Your task to perform on an android device: Go to notification settings Image 0: 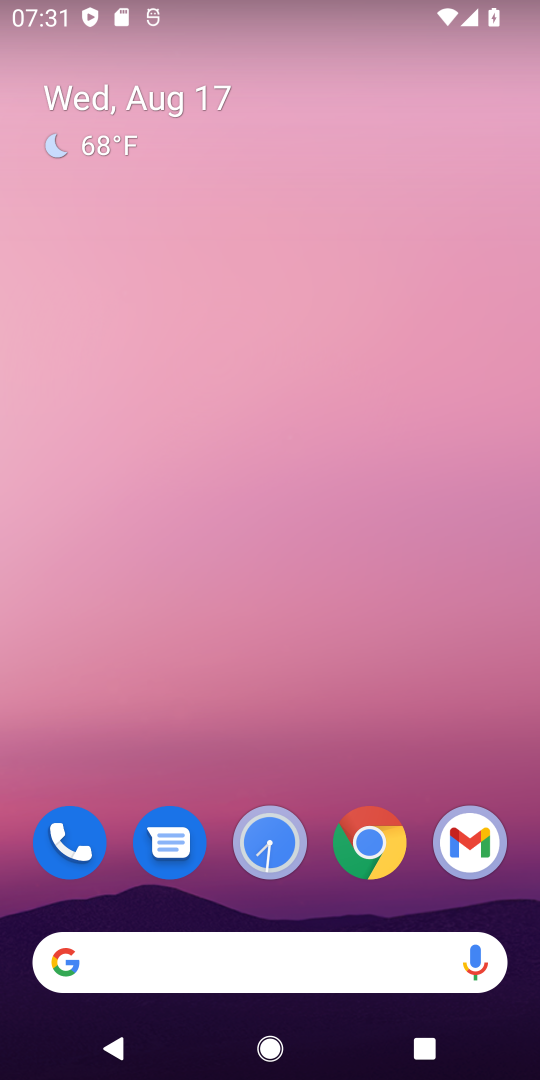
Step 0: drag from (321, 697) to (383, 0)
Your task to perform on an android device: Go to notification settings Image 1: 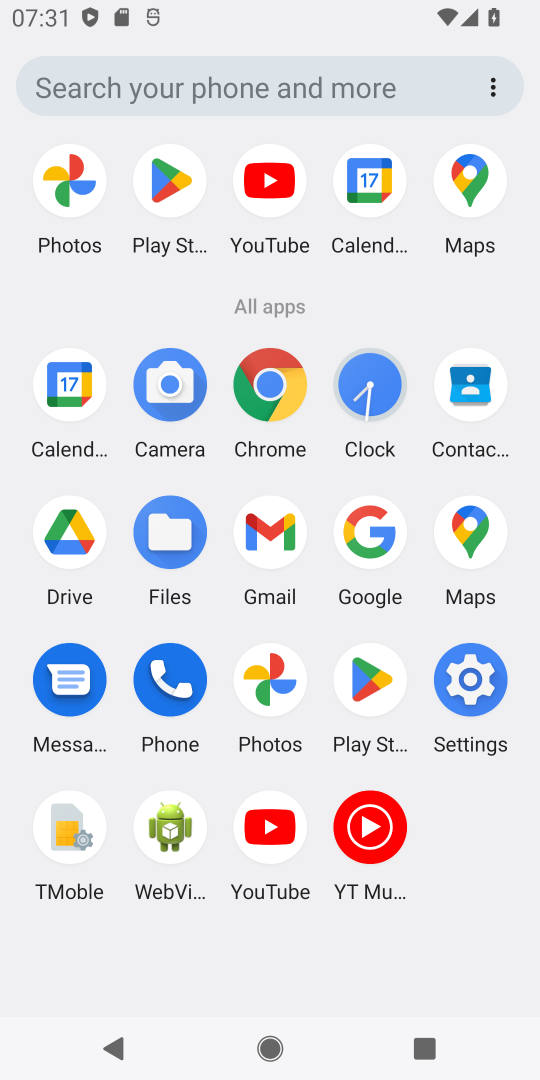
Step 1: click (474, 680)
Your task to perform on an android device: Go to notification settings Image 2: 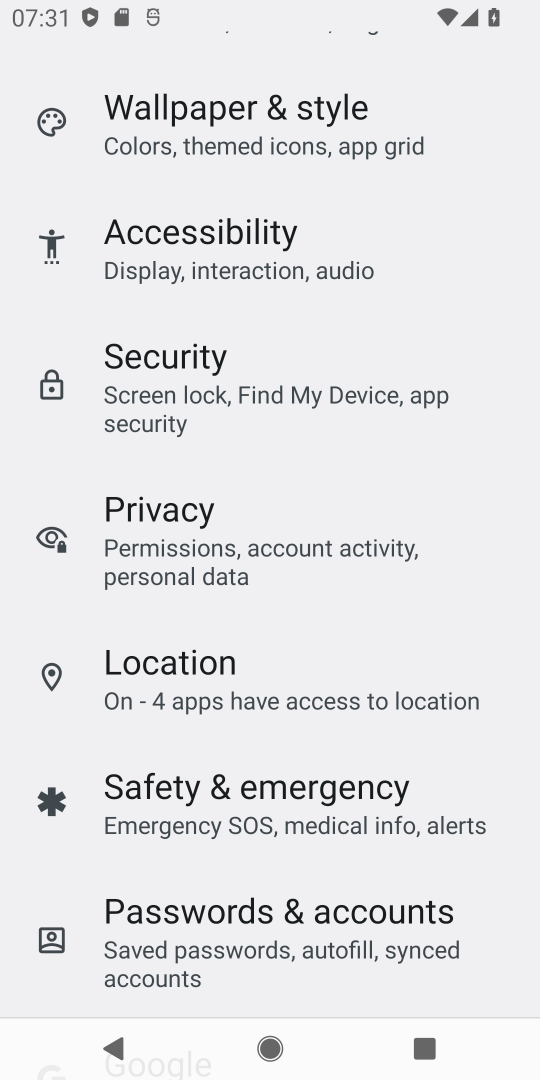
Step 2: drag from (306, 412) to (312, 922)
Your task to perform on an android device: Go to notification settings Image 3: 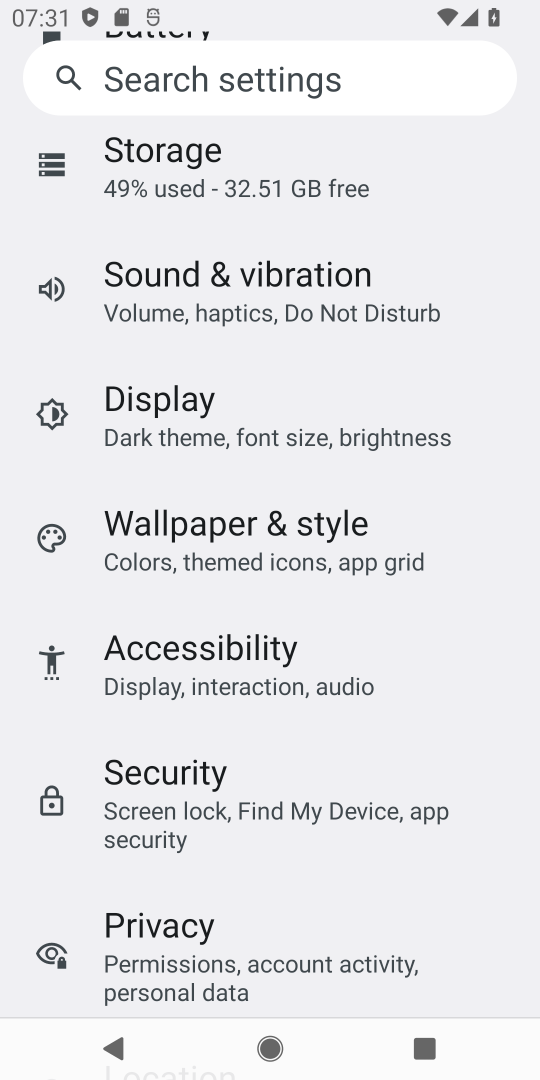
Step 3: drag from (304, 468) to (285, 874)
Your task to perform on an android device: Go to notification settings Image 4: 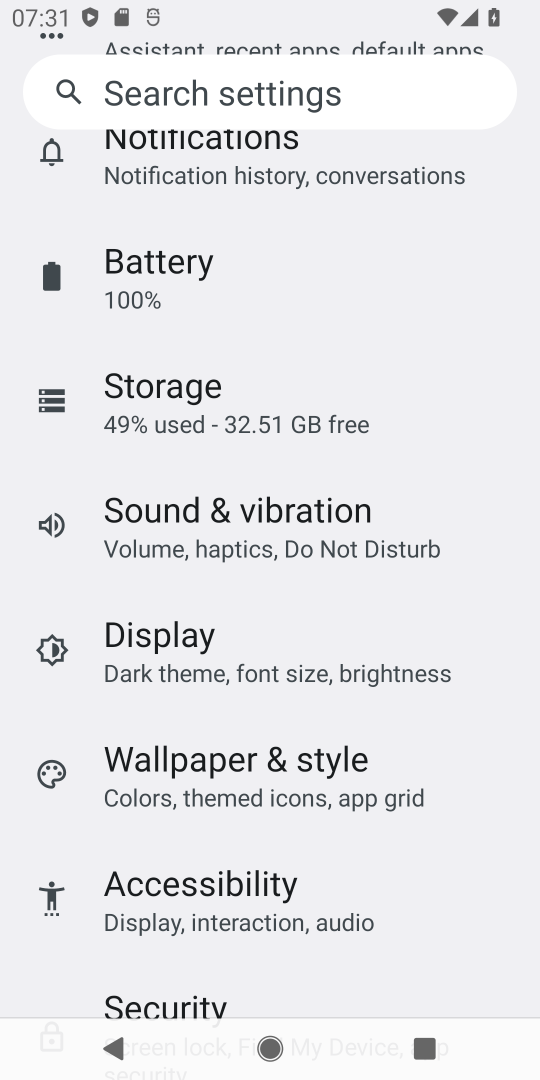
Step 4: drag from (300, 355) to (309, 869)
Your task to perform on an android device: Go to notification settings Image 5: 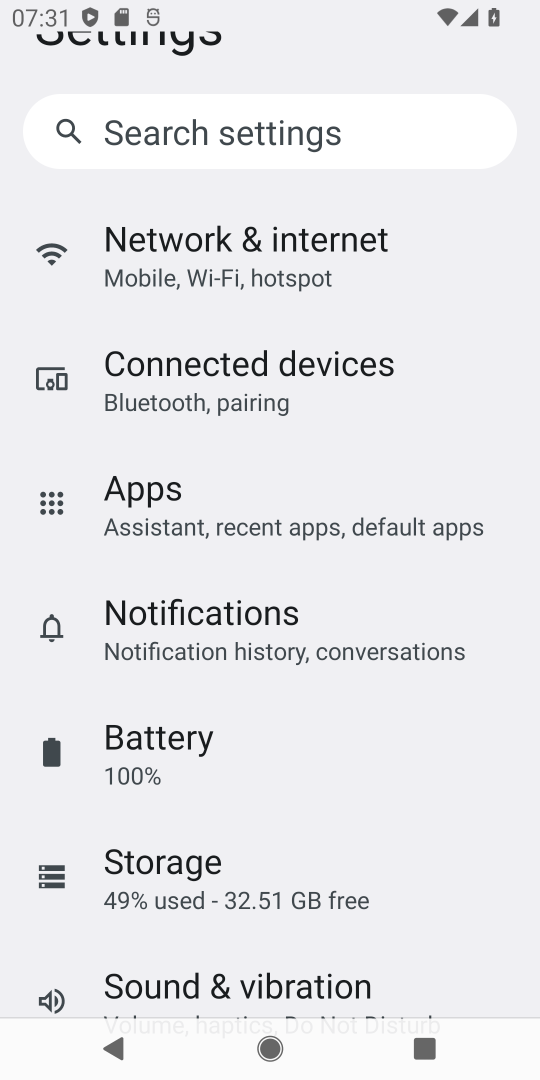
Step 5: click (261, 626)
Your task to perform on an android device: Go to notification settings Image 6: 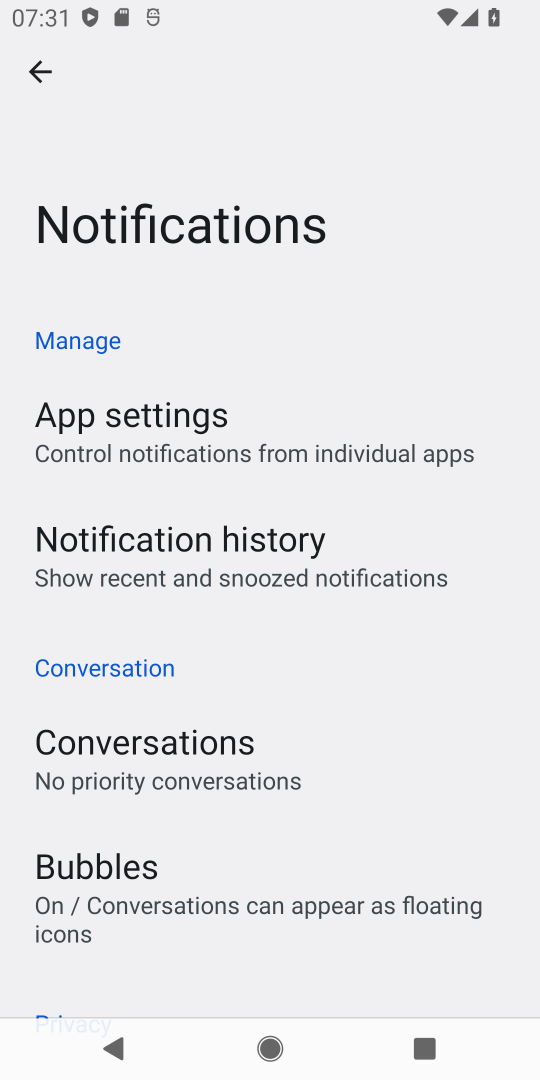
Step 6: task complete